Your task to perform on an android device: turn on translation in the chrome app Image 0: 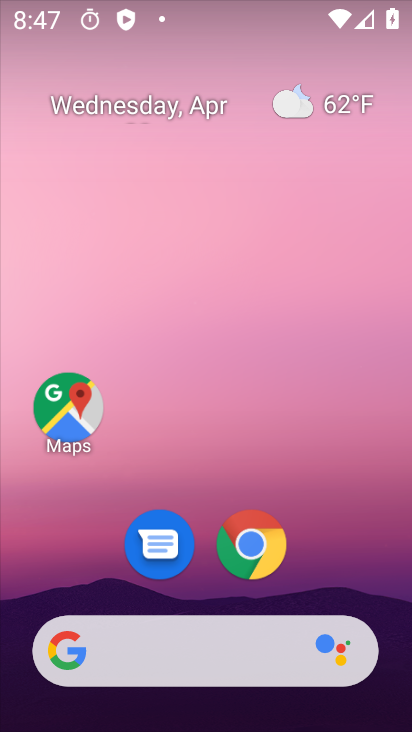
Step 0: click (270, 527)
Your task to perform on an android device: turn on translation in the chrome app Image 1: 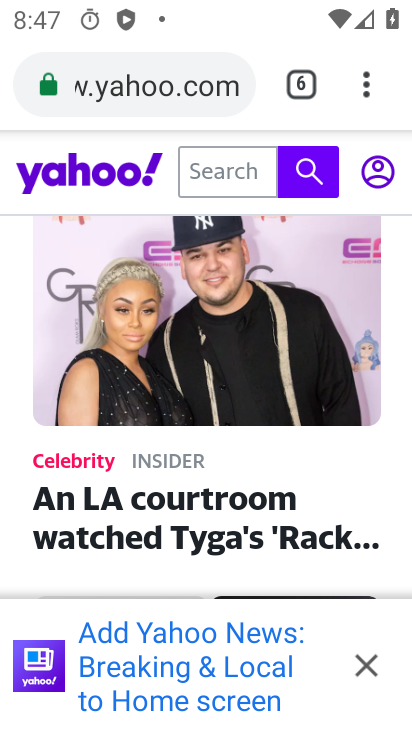
Step 1: drag from (368, 86) to (151, 589)
Your task to perform on an android device: turn on translation in the chrome app Image 2: 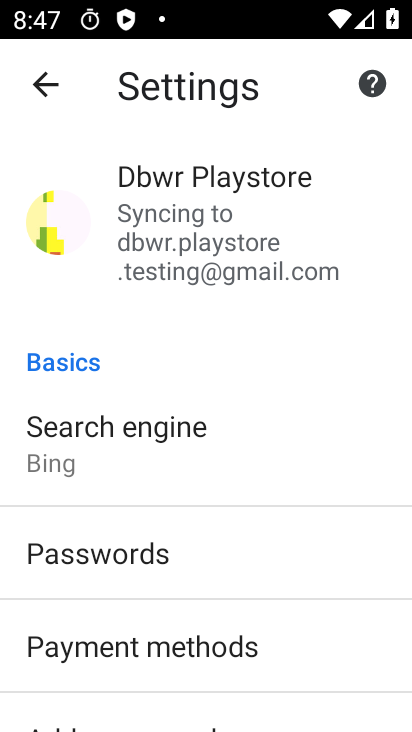
Step 2: drag from (344, 682) to (285, 223)
Your task to perform on an android device: turn on translation in the chrome app Image 3: 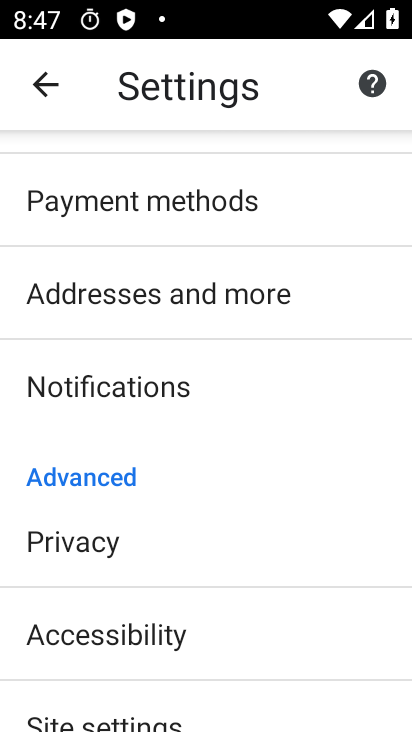
Step 3: drag from (217, 653) to (231, 468)
Your task to perform on an android device: turn on translation in the chrome app Image 4: 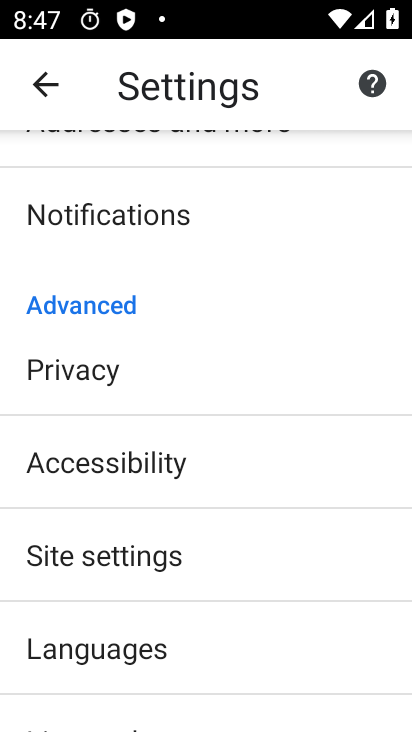
Step 4: click (109, 649)
Your task to perform on an android device: turn on translation in the chrome app Image 5: 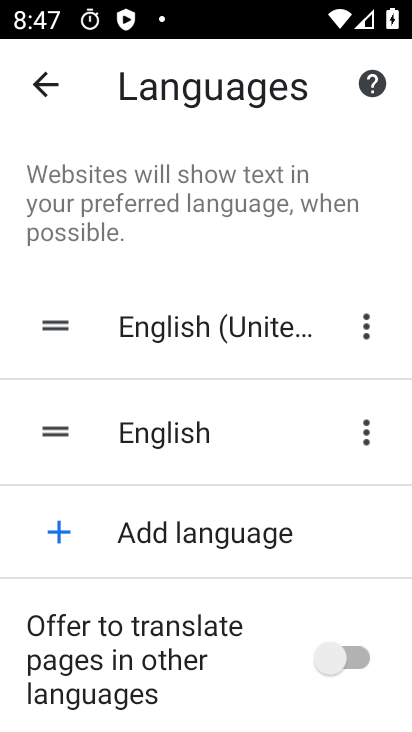
Step 5: click (347, 652)
Your task to perform on an android device: turn on translation in the chrome app Image 6: 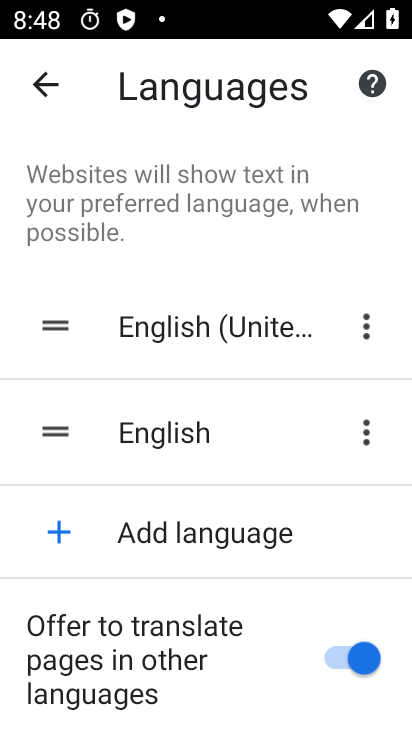
Step 6: task complete